Your task to perform on an android device: Open Google Maps Image 0: 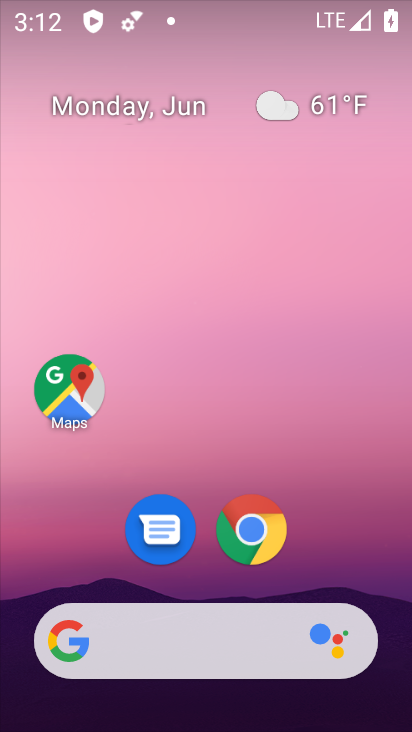
Step 0: drag from (178, 462) to (138, 37)
Your task to perform on an android device: Open Google Maps Image 1: 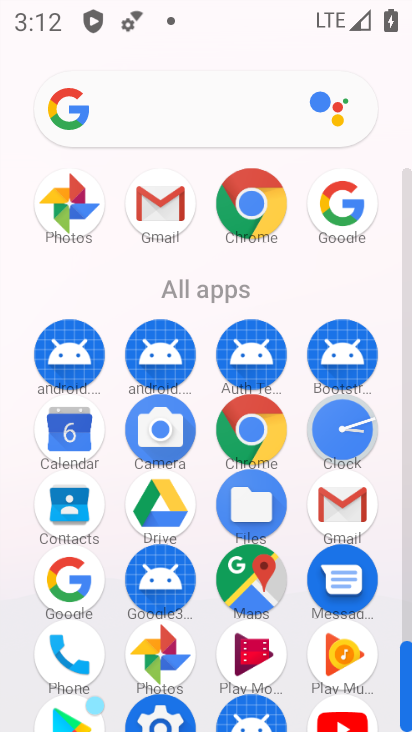
Step 1: click (74, 588)
Your task to perform on an android device: Open Google Maps Image 2: 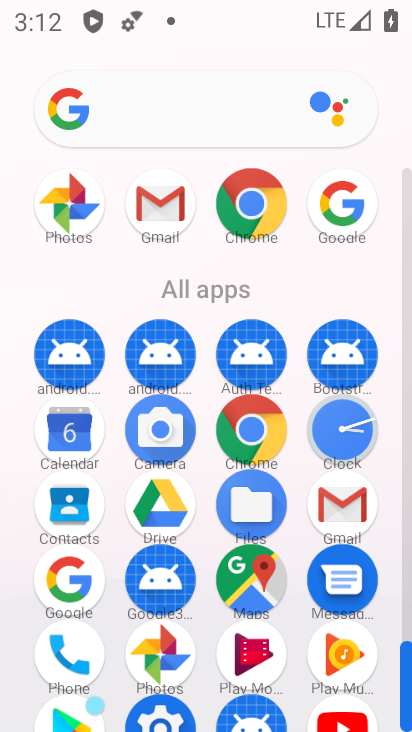
Step 2: click (68, 577)
Your task to perform on an android device: Open Google Maps Image 3: 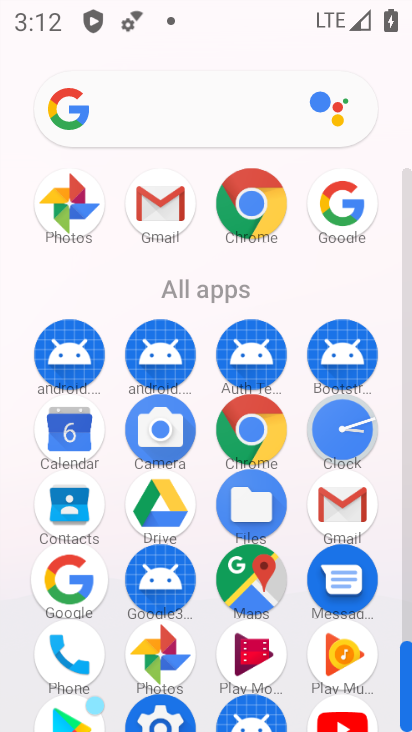
Step 3: click (68, 577)
Your task to perform on an android device: Open Google Maps Image 4: 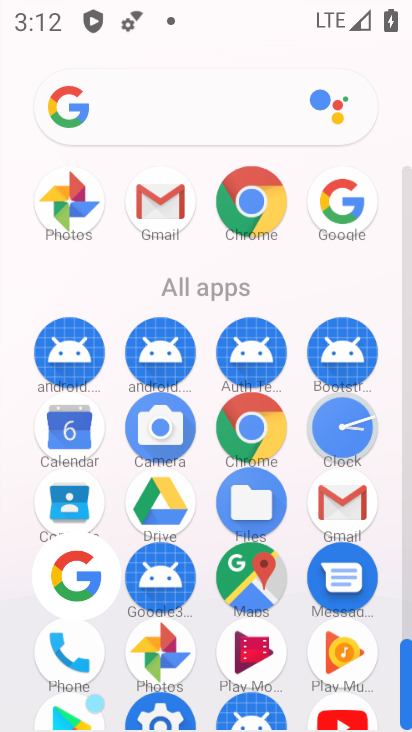
Step 4: click (68, 576)
Your task to perform on an android device: Open Google Maps Image 5: 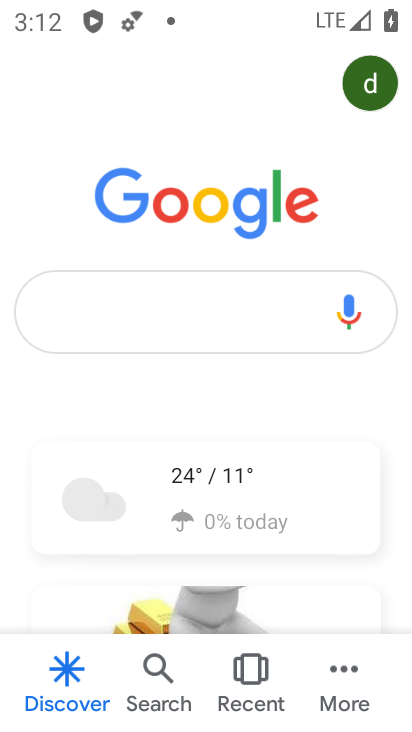
Step 5: press back button
Your task to perform on an android device: Open Google Maps Image 6: 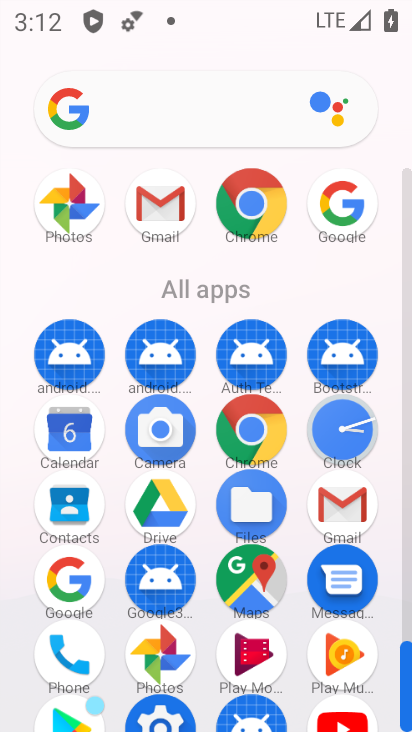
Step 6: click (238, 596)
Your task to perform on an android device: Open Google Maps Image 7: 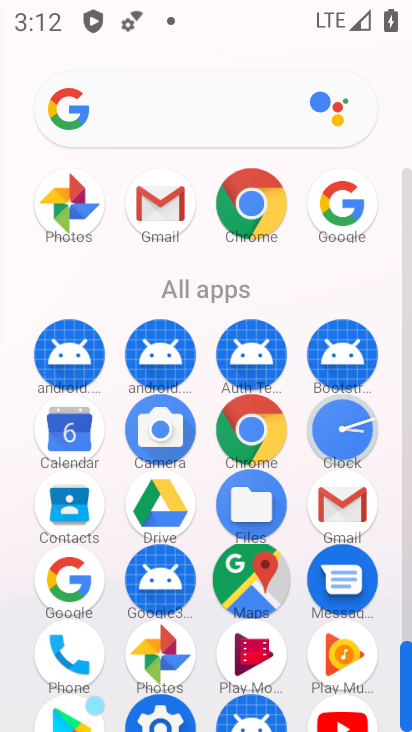
Step 7: click (238, 590)
Your task to perform on an android device: Open Google Maps Image 8: 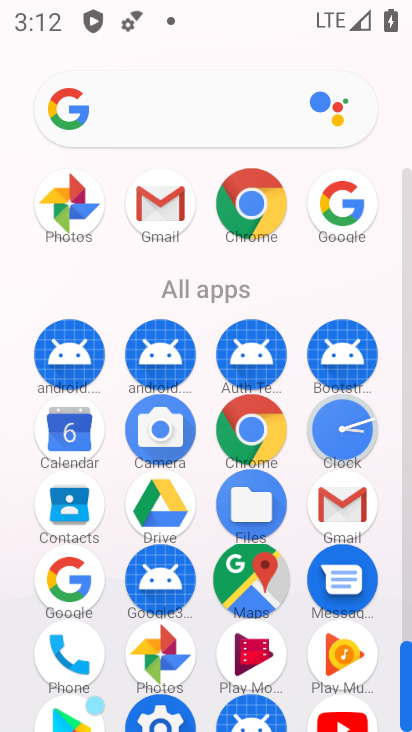
Step 8: click (240, 590)
Your task to perform on an android device: Open Google Maps Image 9: 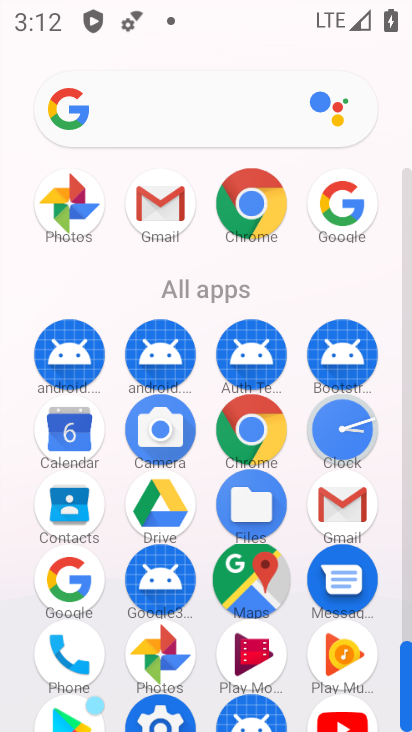
Step 9: click (239, 586)
Your task to perform on an android device: Open Google Maps Image 10: 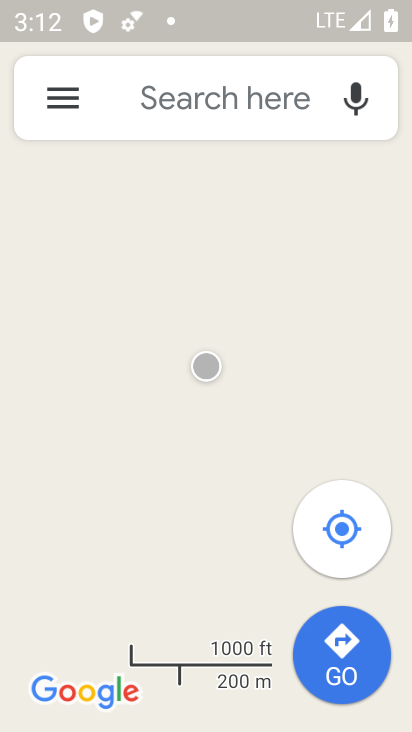
Step 10: task complete